Your task to perform on an android device: Open ESPN.com Image 0: 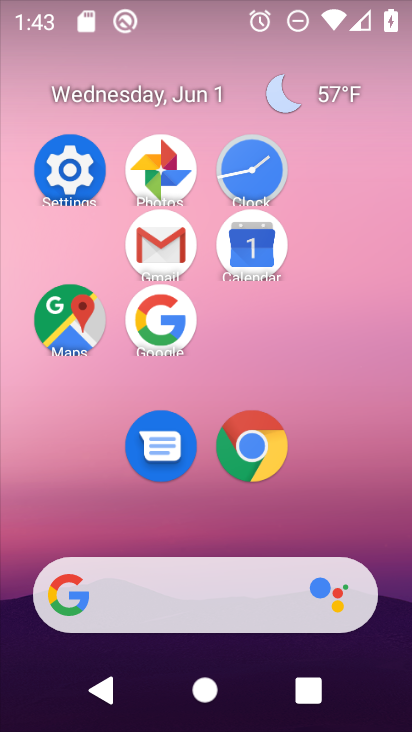
Step 0: click (251, 460)
Your task to perform on an android device: Open ESPN.com Image 1: 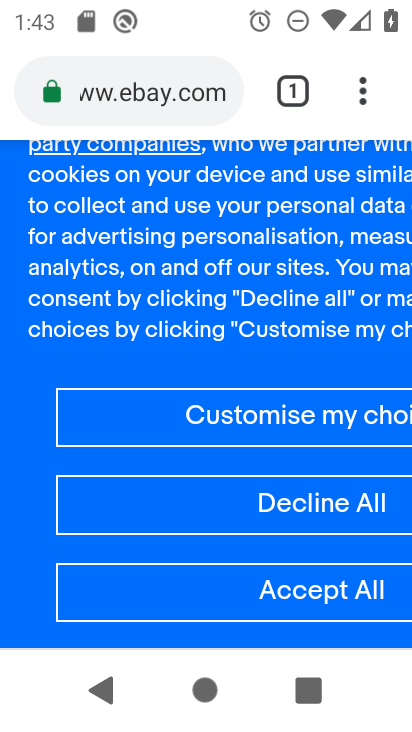
Step 1: click (277, 93)
Your task to perform on an android device: Open ESPN.com Image 2: 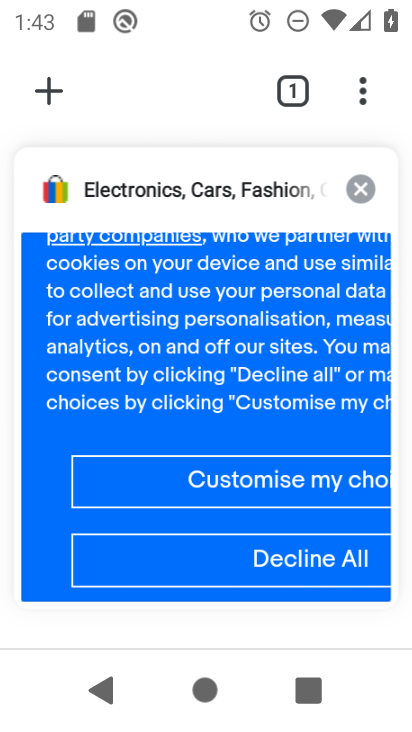
Step 2: click (64, 106)
Your task to perform on an android device: Open ESPN.com Image 3: 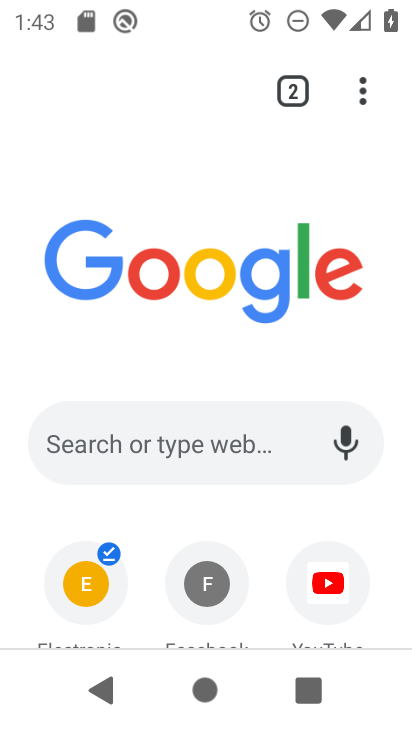
Step 3: drag from (270, 555) to (267, 145)
Your task to perform on an android device: Open ESPN.com Image 4: 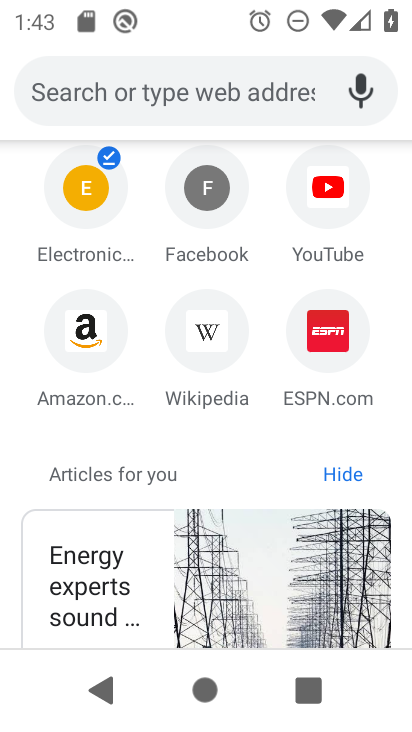
Step 4: click (332, 332)
Your task to perform on an android device: Open ESPN.com Image 5: 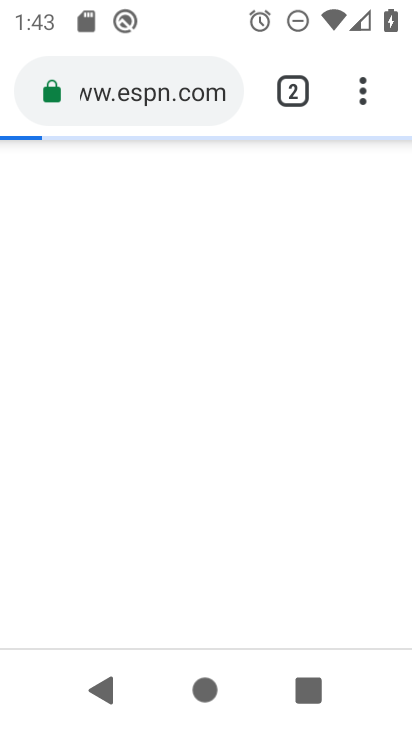
Step 5: task complete